Your task to perform on an android device: all mails in gmail Image 0: 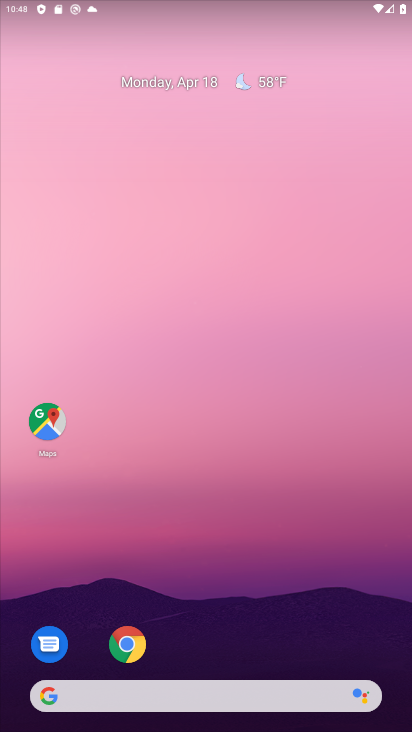
Step 0: drag from (173, 653) to (200, 340)
Your task to perform on an android device: all mails in gmail Image 1: 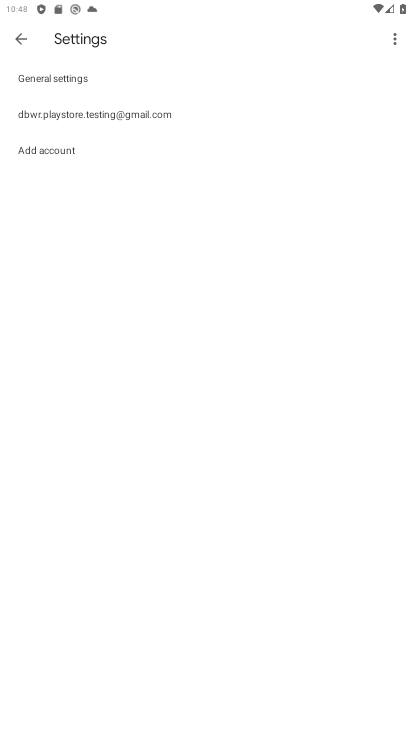
Step 1: press home button
Your task to perform on an android device: all mails in gmail Image 2: 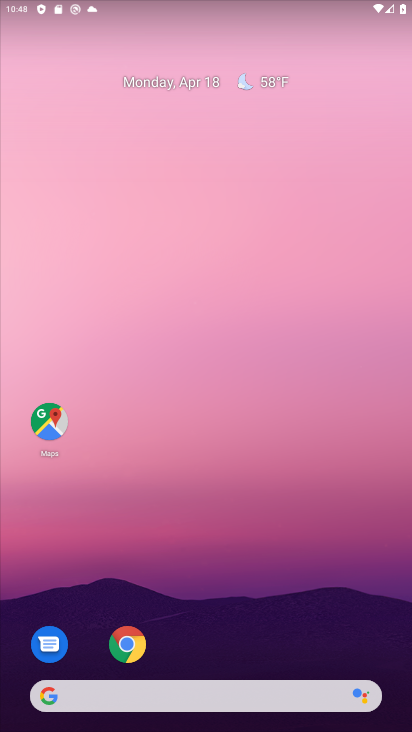
Step 2: drag from (112, 570) to (211, 157)
Your task to perform on an android device: all mails in gmail Image 3: 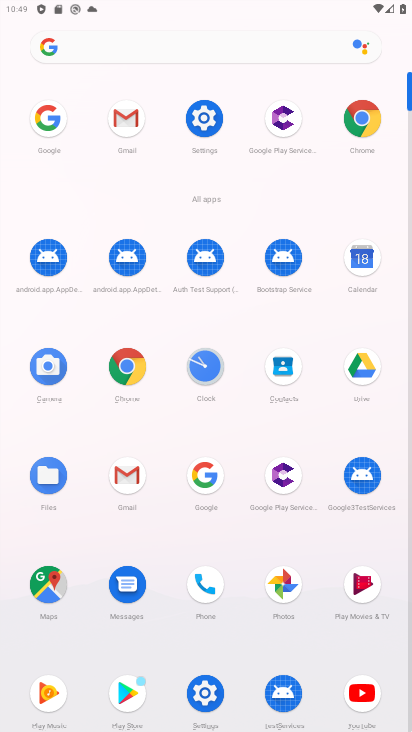
Step 3: click (113, 118)
Your task to perform on an android device: all mails in gmail Image 4: 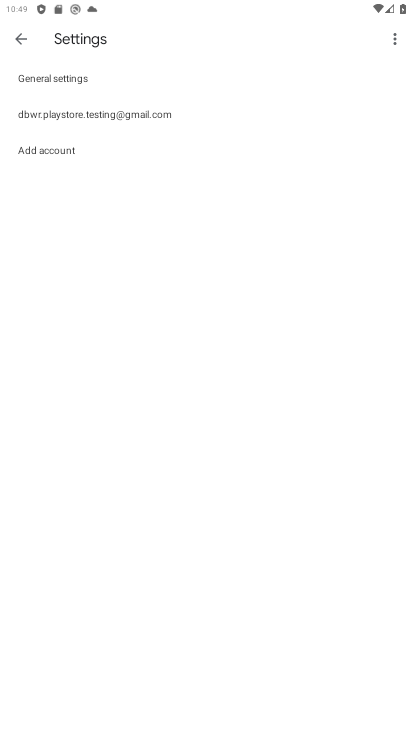
Step 4: click (50, 111)
Your task to perform on an android device: all mails in gmail Image 5: 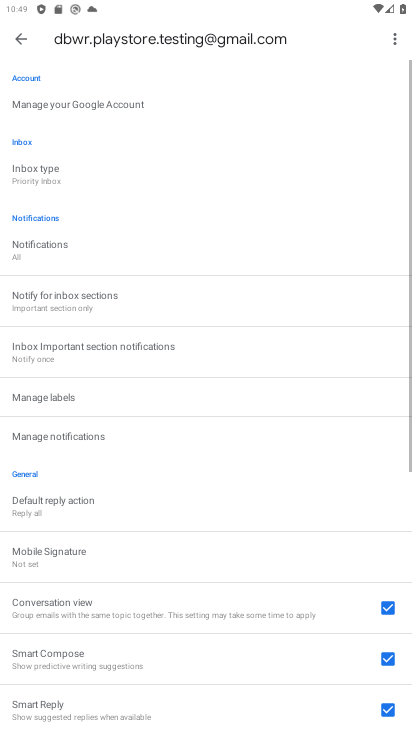
Step 5: click (27, 41)
Your task to perform on an android device: all mails in gmail Image 6: 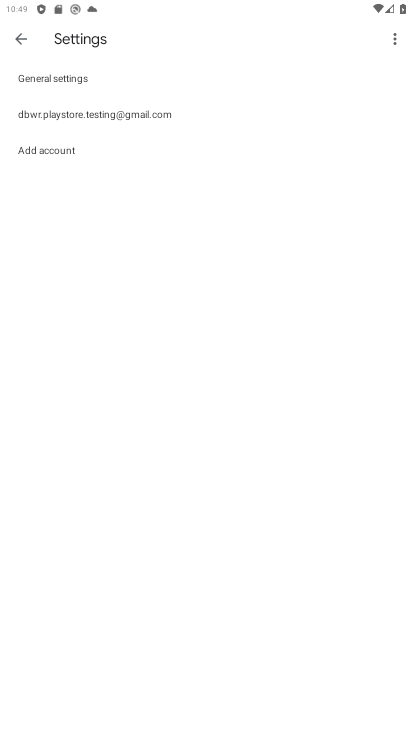
Step 6: click (27, 41)
Your task to perform on an android device: all mails in gmail Image 7: 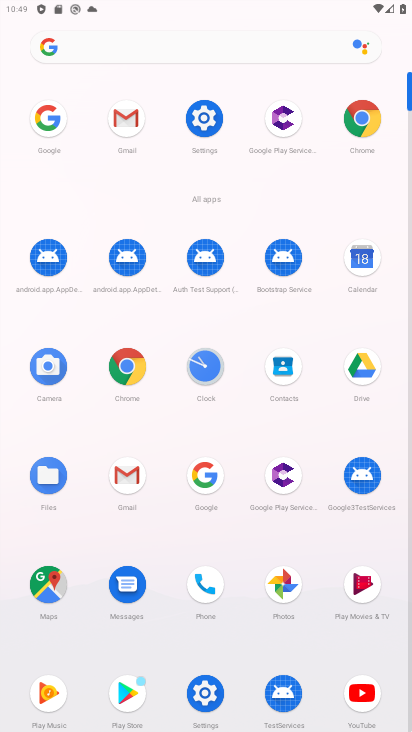
Step 7: click (126, 122)
Your task to perform on an android device: all mails in gmail Image 8: 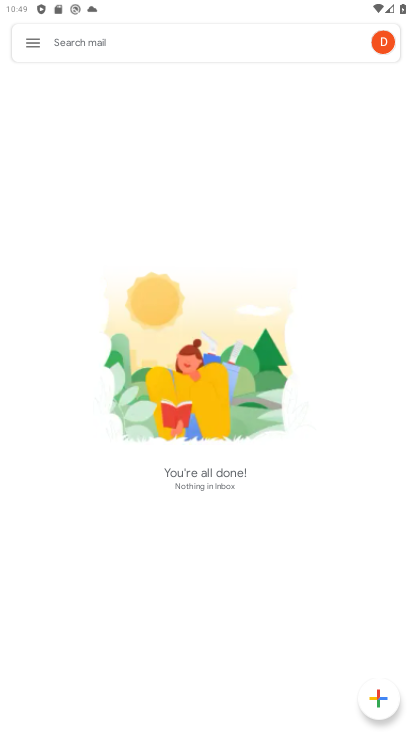
Step 8: click (31, 39)
Your task to perform on an android device: all mails in gmail Image 9: 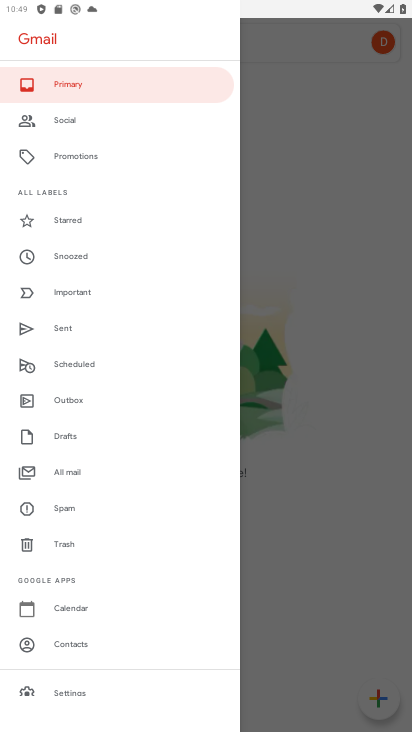
Step 9: click (82, 470)
Your task to perform on an android device: all mails in gmail Image 10: 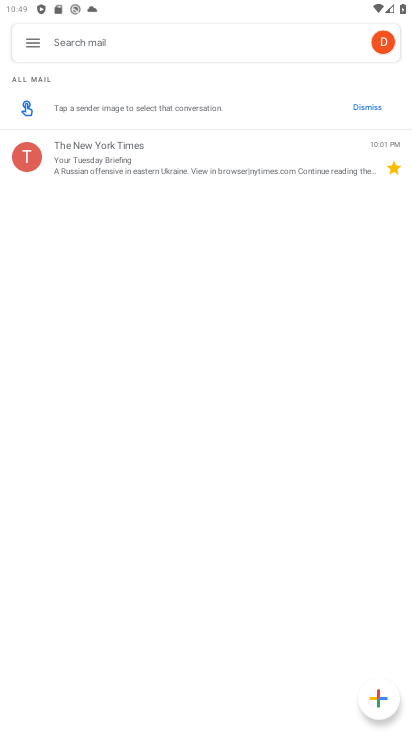
Step 10: task complete